Your task to perform on an android device: toggle improve location accuracy Image 0: 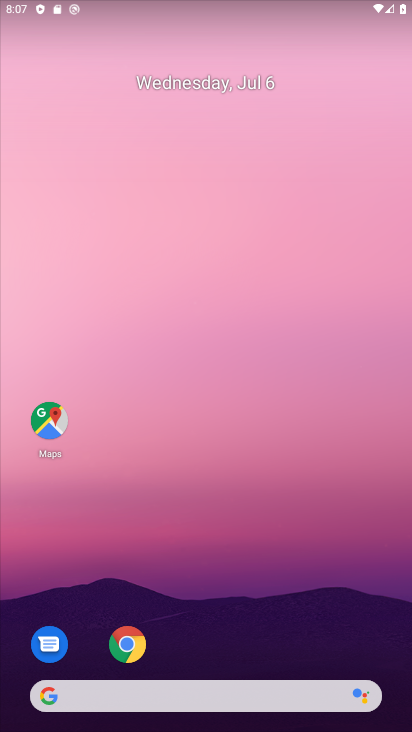
Step 0: drag from (190, 635) to (172, 156)
Your task to perform on an android device: toggle improve location accuracy Image 1: 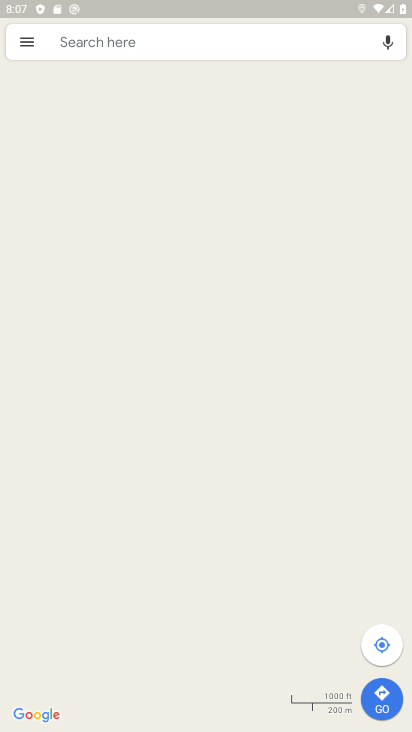
Step 1: press home button
Your task to perform on an android device: toggle improve location accuracy Image 2: 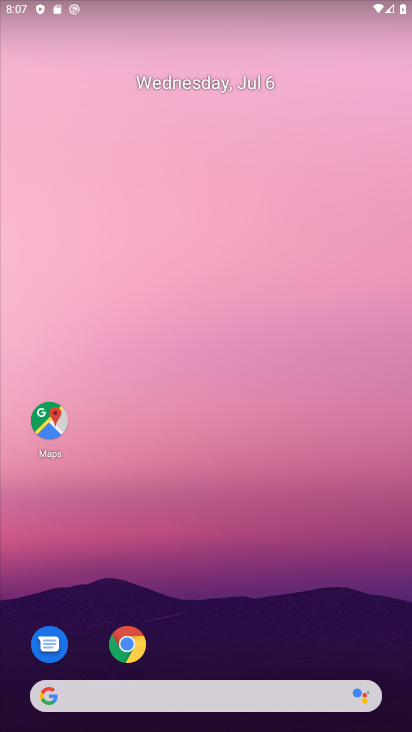
Step 2: drag from (207, 641) to (207, 209)
Your task to perform on an android device: toggle improve location accuracy Image 3: 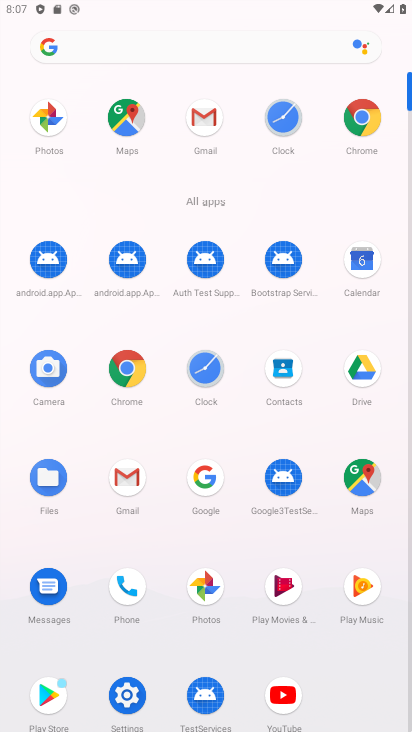
Step 3: click (117, 687)
Your task to perform on an android device: toggle improve location accuracy Image 4: 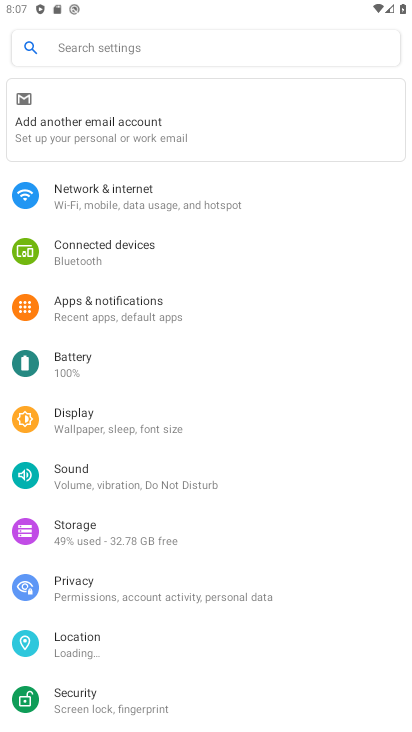
Step 4: click (147, 636)
Your task to perform on an android device: toggle improve location accuracy Image 5: 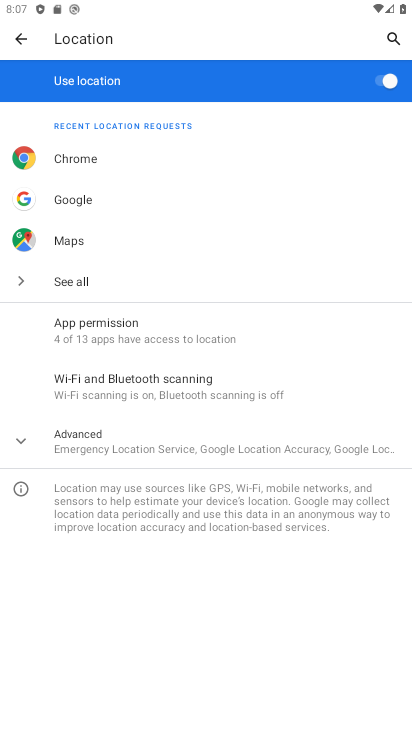
Step 5: click (117, 441)
Your task to perform on an android device: toggle improve location accuracy Image 6: 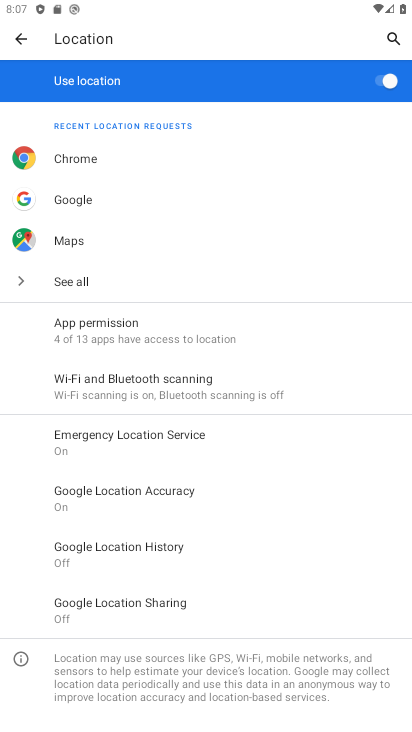
Step 6: click (178, 501)
Your task to perform on an android device: toggle improve location accuracy Image 7: 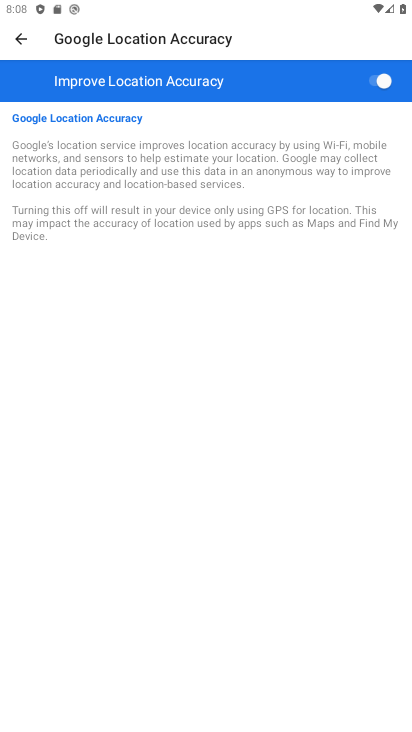
Step 7: click (366, 85)
Your task to perform on an android device: toggle improve location accuracy Image 8: 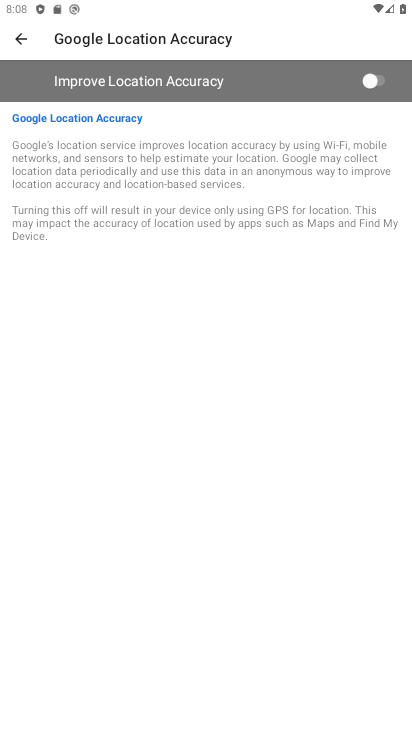
Step 8: task complete